Your task to perform on an android device: check the backup settings in the google photos Image 0: 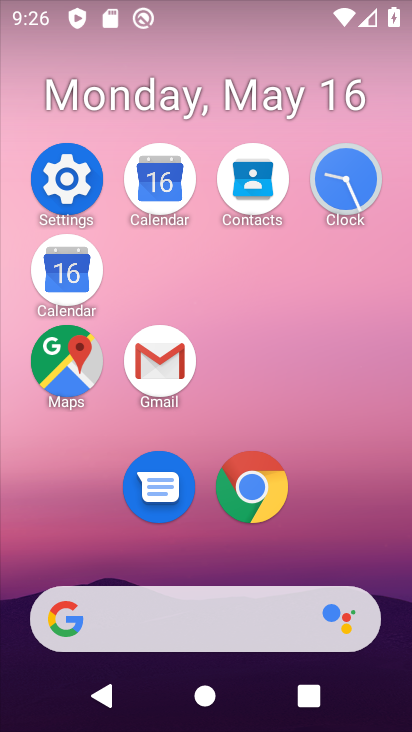
Step 0: drag from (318, 515) to (390, 183)
Your task to perform on an android device: check the backup settings in the google photos Image 1: 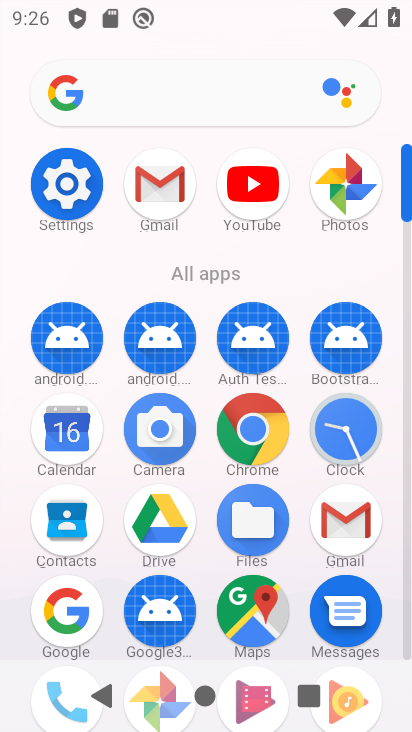
Step 1: click (355, 186)
Your task to perform on an android device: check the backup settings in the google photos Image 2: 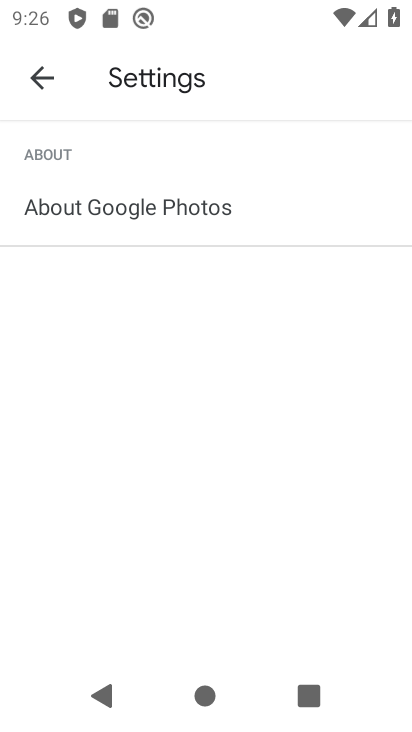
Step 2: click (42, 82)
Your task to perform on an android device: check the backup settings in the google photos Image 3: 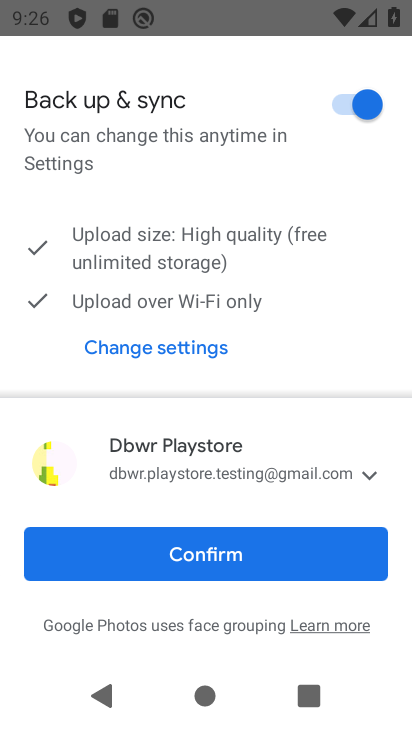
Step 3: click (332, 538)
Your task to perform on an android device: check the backup settings in the google photos Image 4: 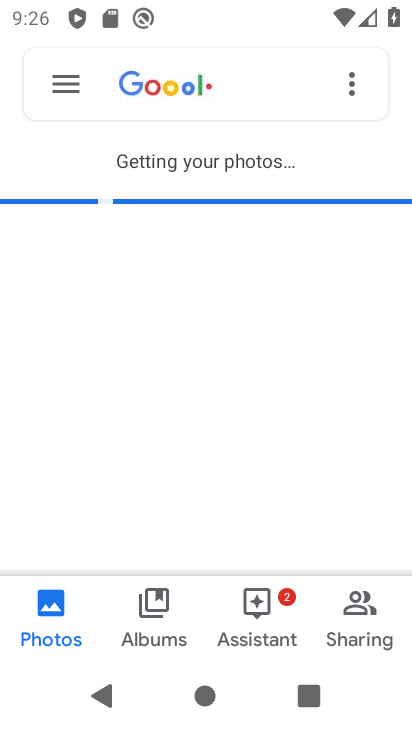
Step 4: click (78, 77)
Your task to perform on an android device: check the backup settings in the google photos Image 5: 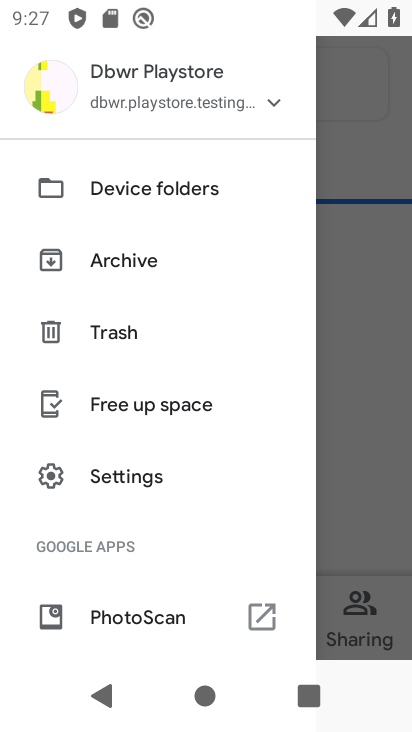
Step 5: click (136, 459)
Your task to perform on an android device: check the backup settings in the google photos Image 6: 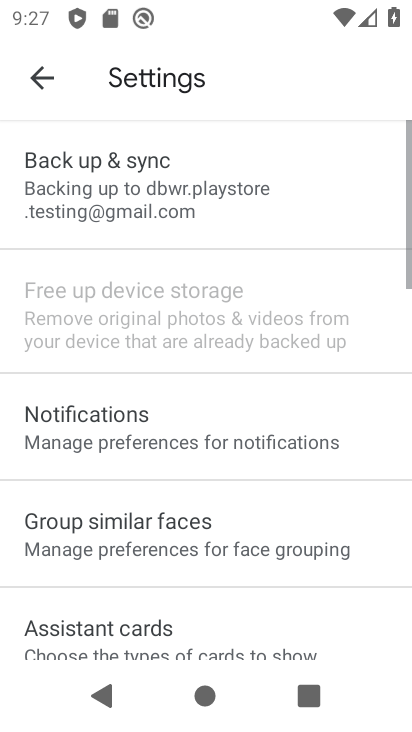
Step 6: click (169, 203)
Your task to perform on an android device: check the backup settings in the google photos Image 7: 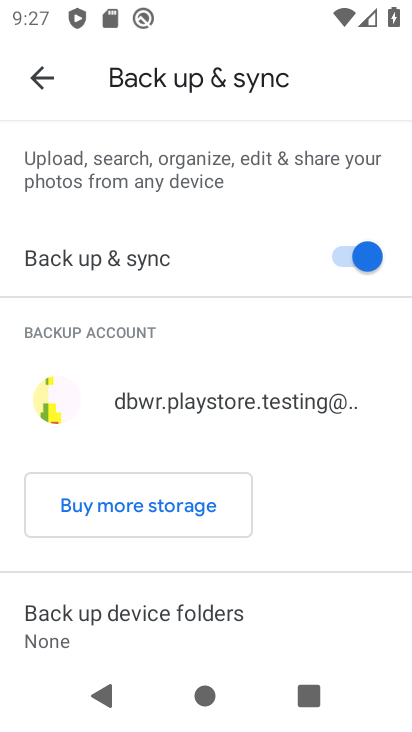
Step 7: task complete